Your task to perform on an android device: open app "Microsoft Excel" (install if not already installed) Image 0: 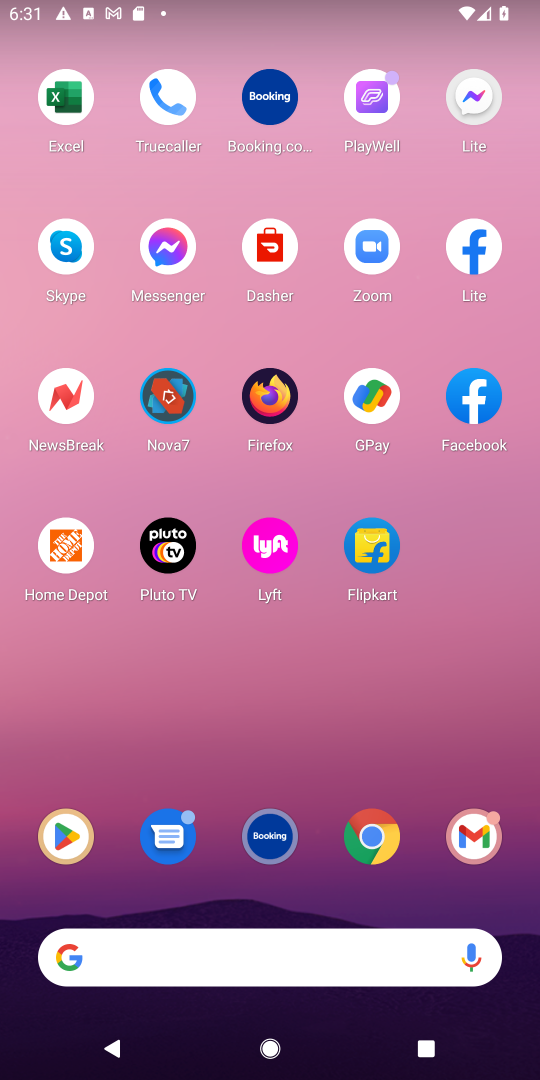
Step 0: press home button
Your task to perform on an android device: open app "Microsoft Excel" (install if not already installed) Image 1: 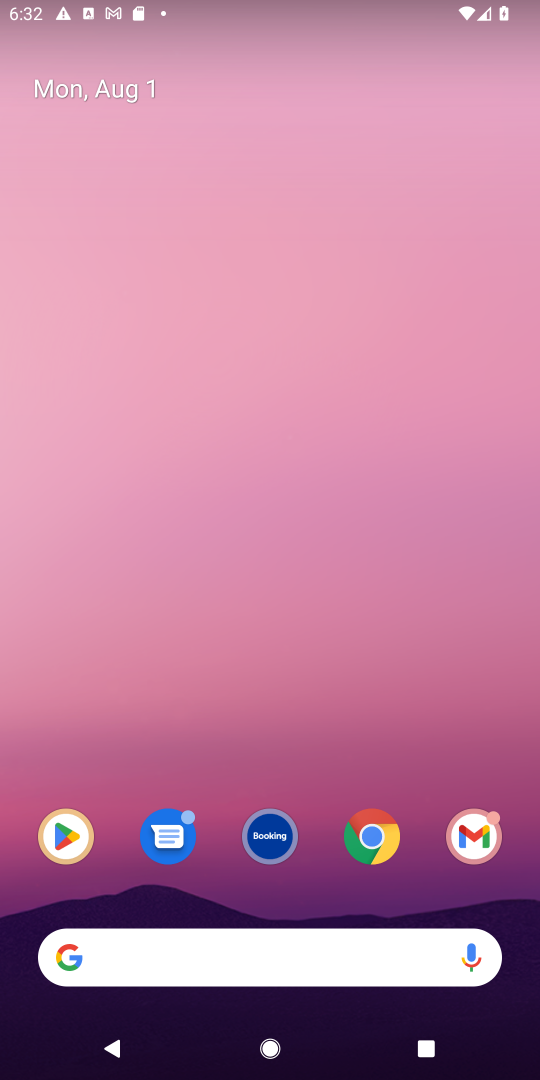
Step 1: click (64, 835)
Your task to perform on an android device: open app "Microsoft Excel" (install if not already installed) Image 2: 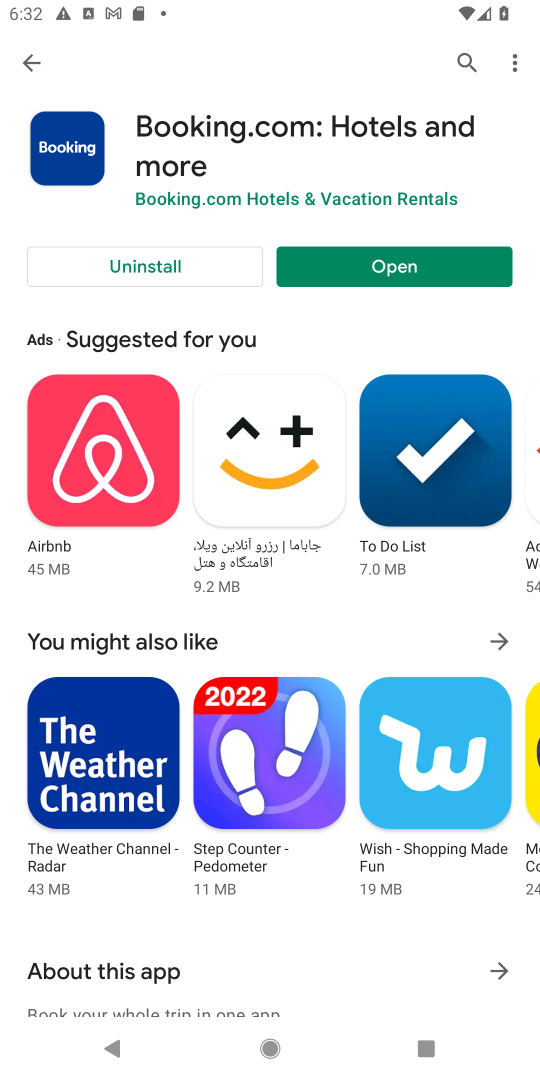
Step 2: click (463, 51)
Your task to perform on an android device: open app "Microsoft Excel" (install if not already installed) Image 3: 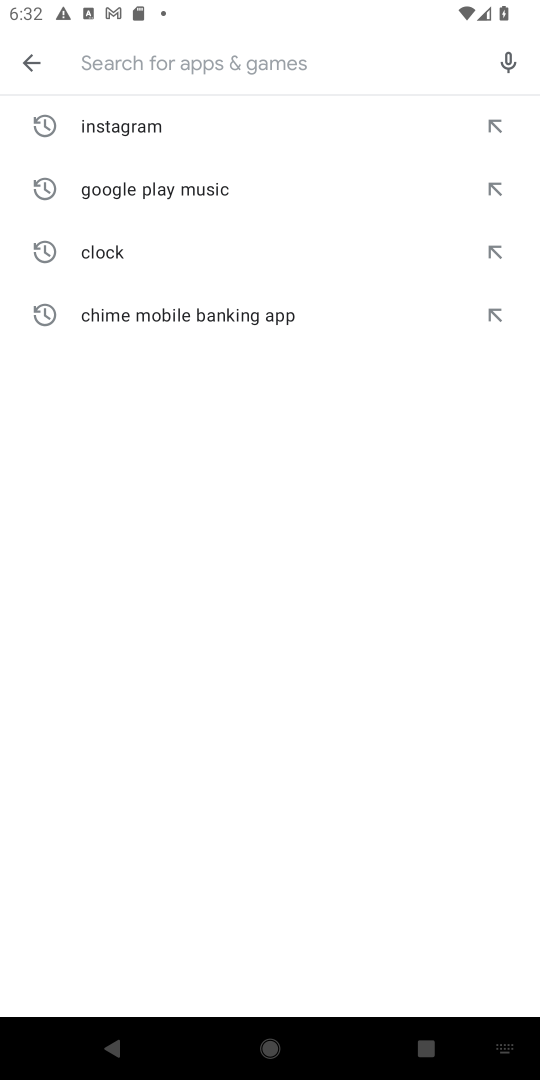
Step 3: type "Microsoft Excel"
Your task to perform on an android device: open app "Microsoft Excel" (install if not already installed) Image 4: 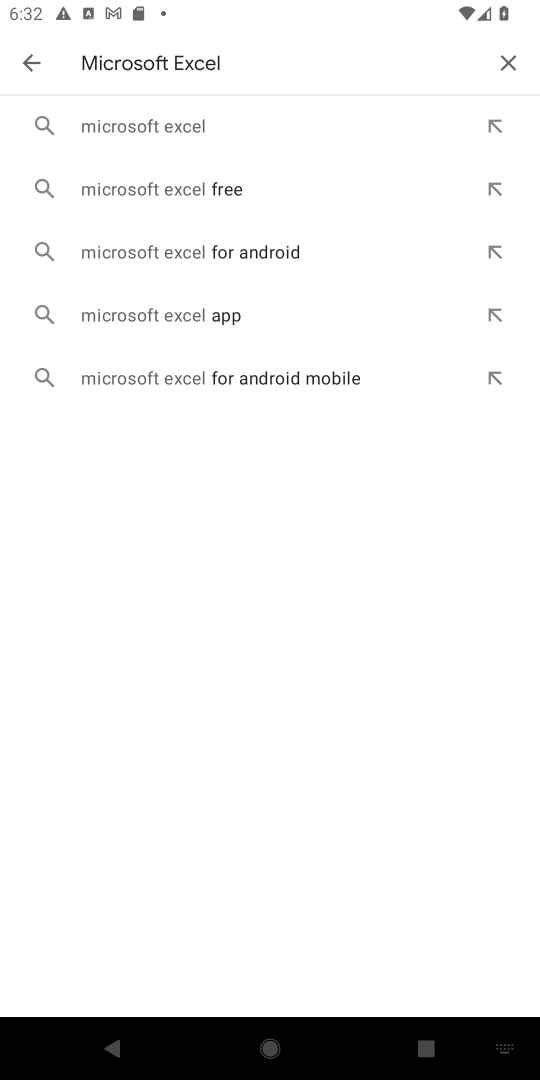
Step 4: click (163, 122)
Your task to perform on an android device: open app "Microsoft Excel" (install if not already installed) Image 5: 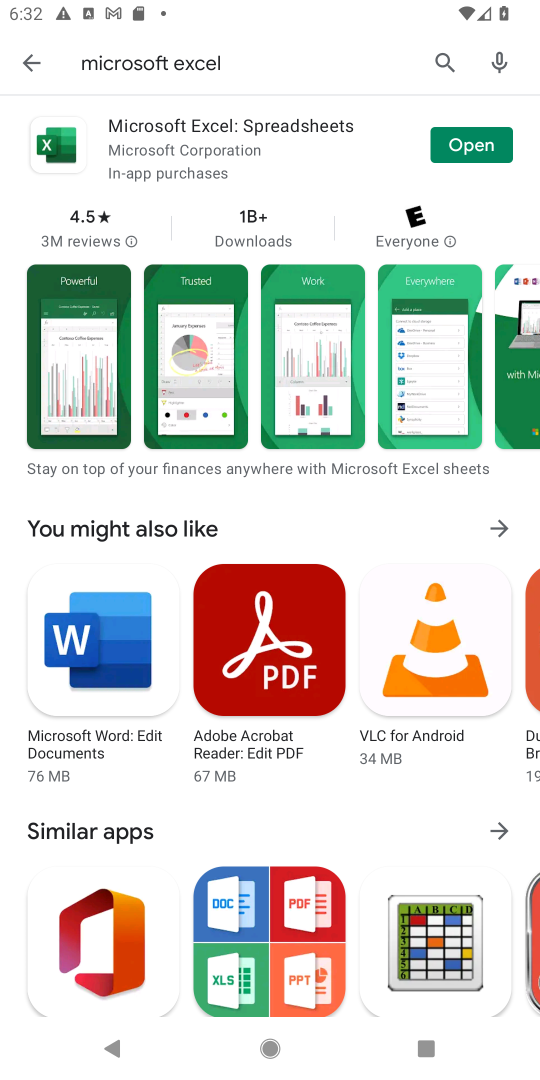
Step 5: click (482, 133)
Your task to perform on an android device: open app "Microsoft Excel" (install if not already installed) Image 6: 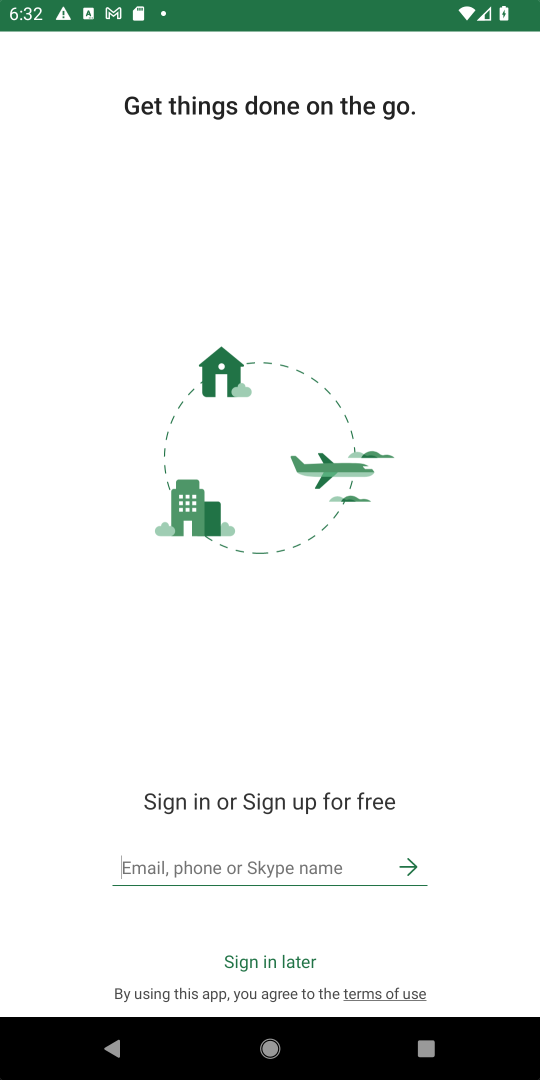
Step 6: task complete